Your task to perform on an android device: What's the weather going to be this weekend? Image 0: 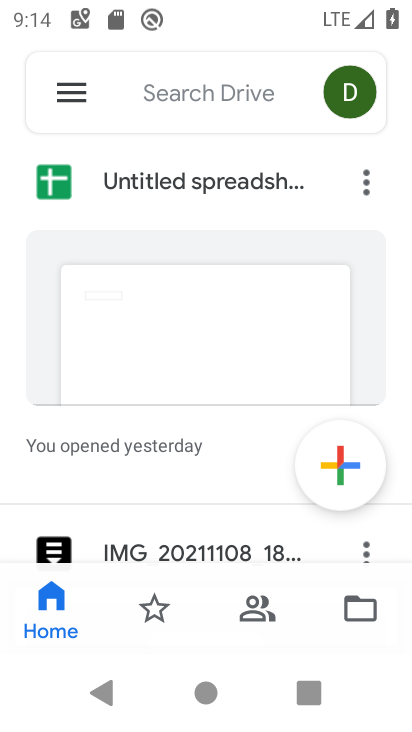
Step 0: press home button
Your task to perform on an android device: What's the weather going to be this weekend? Image 1: 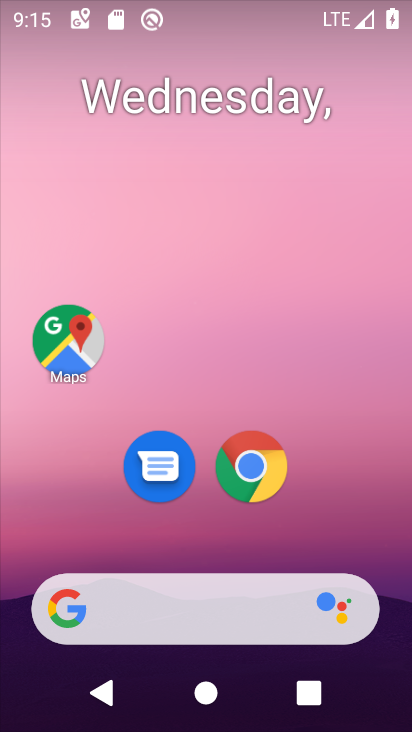
Step 1: drag from (213, 725) to (248, 163)
Your task to perform on an android device: What's the weather going to be this weekend? Image 2: 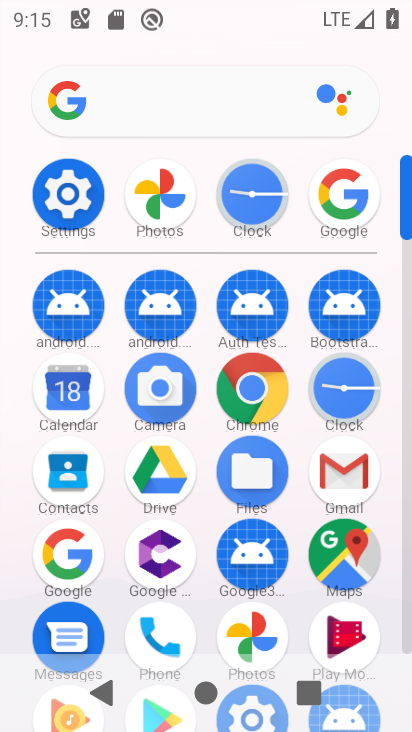
Step 2: click (53, 545)
Your task to perform on an android device: What's the weather going to be this weekend? Image 3: 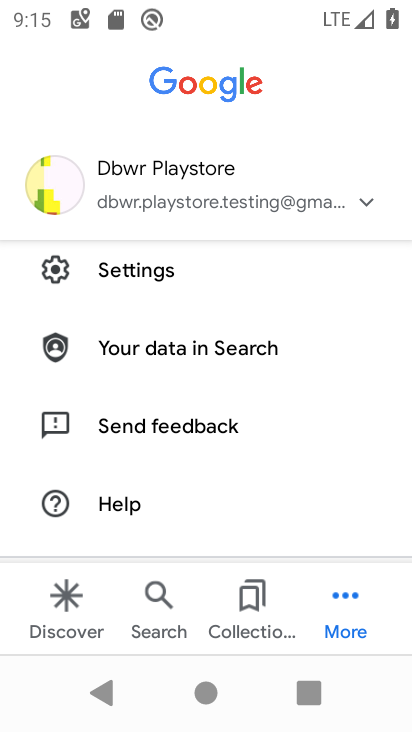
Step 3: click (163, 616)
Your task to perform on an android device: What's the weather going to be this weekend? Image 4: 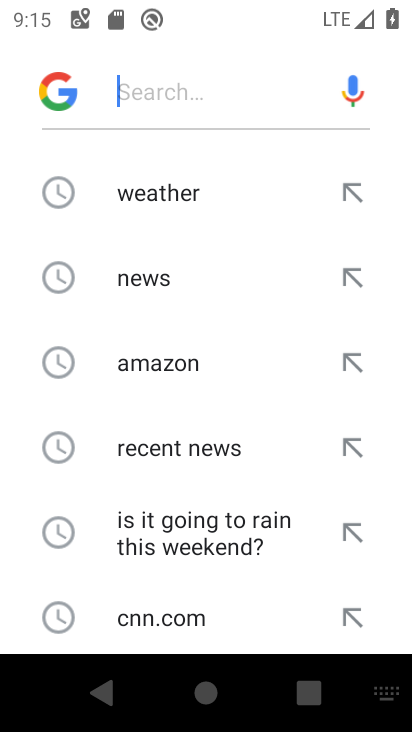
Step 4: click (166, 190)
Your task to perform on an android device: What's the weather going to be this weekend? Image 5: 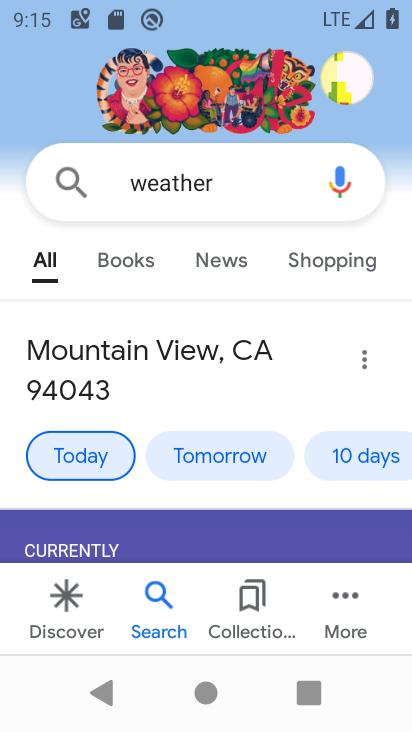
Step 5: click (341, 459)
Your task to perform on an android device: What's the weather going to be this weekend? Image 6: 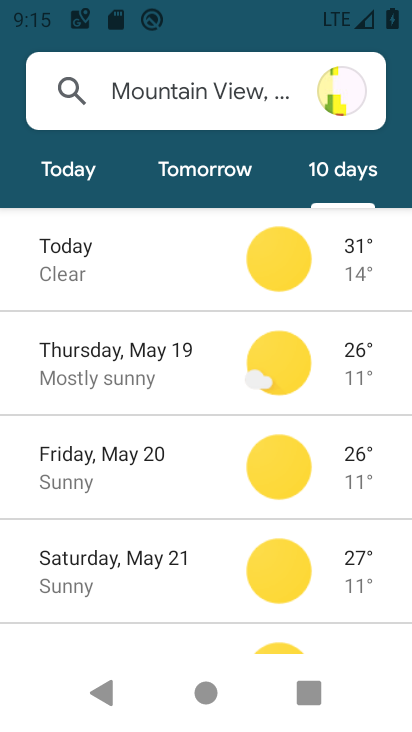
Step 6: click (115, 567)
Your task to perform on an android device: What's the weather going to be this weekend? Image 7: 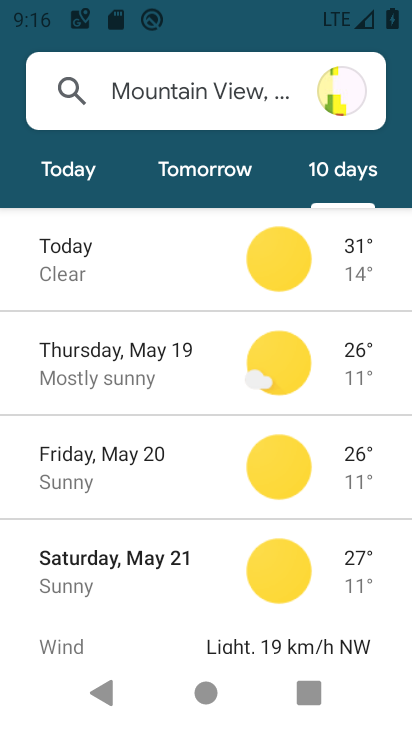
Step 7: task complete